Your task to perform on an android device: turn off sleep mode Image 0: 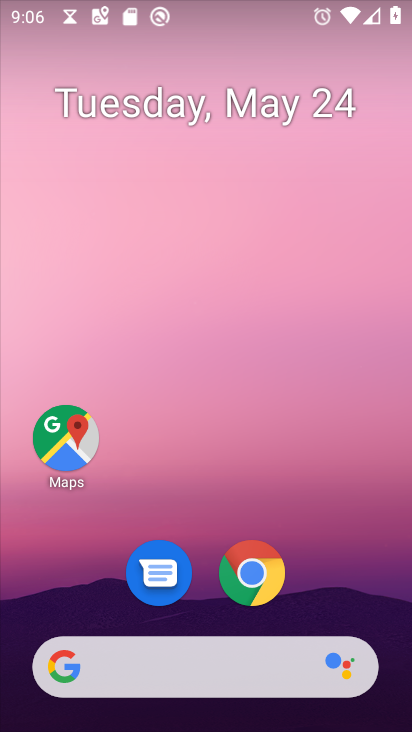
Step 0: click (288, 14)
Your task to perform on an android device: turn off sleep mode Image 1: 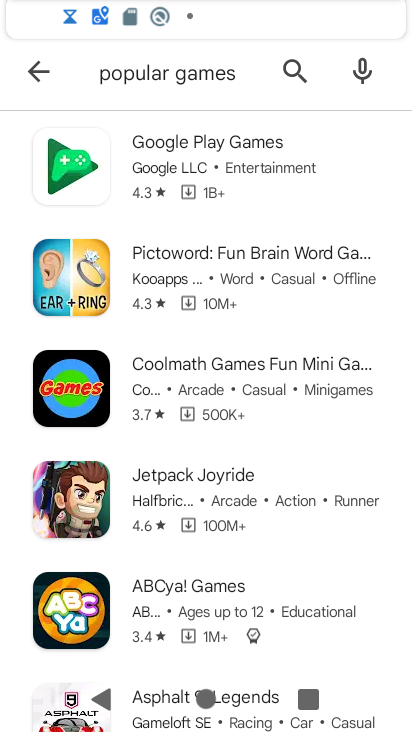
Step 1: press home button
Your task to perform on an android device: turn off sleep mode Image 2: 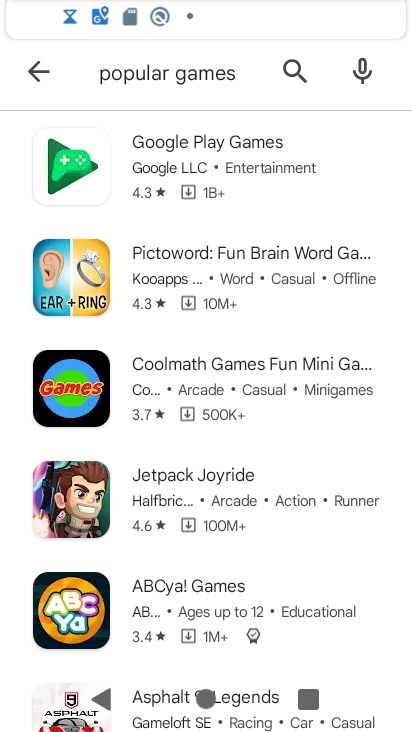
Step 2: drag from (288, 14) to (400, 271)
Your task to perform on an android device: turn off sleep mode Image 3: 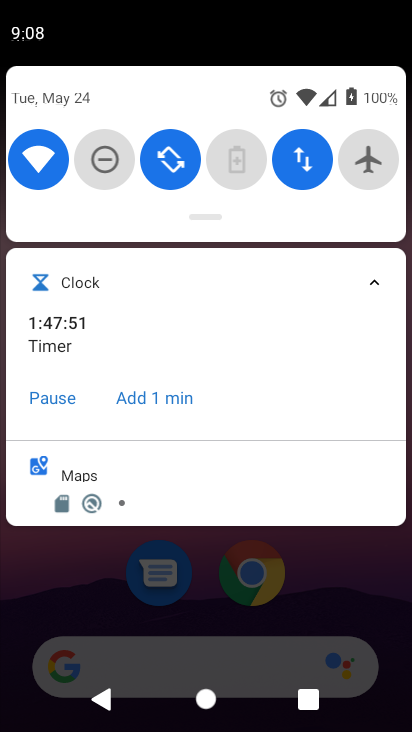
Step 3: drag from (352, 586) to (344, 6)
Your task to perform on an android device: turn off sleep mode Image 4: 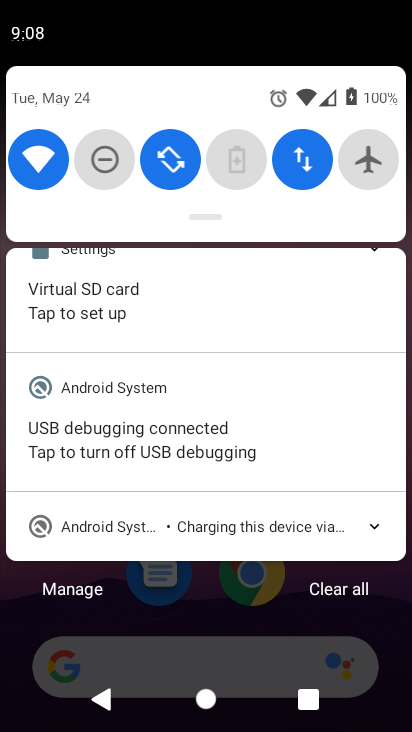
Step 4: drag from (342, 589) to (339, 152)
Your task to perform on an android device: turn off sleep mode Image 5: 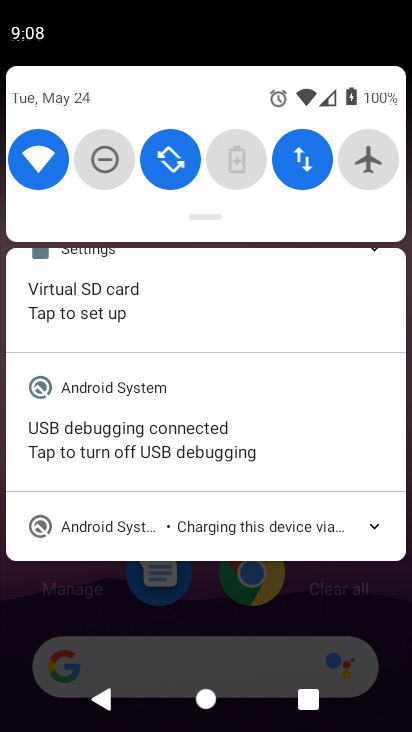
Step 5: press home button
Your task to perform on an android device: turn off sleep mode Image 6: 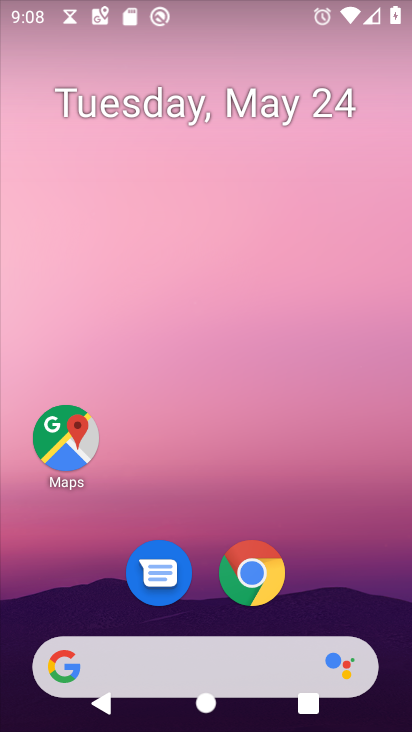
Step 6: press home button
Your task to perform on an android device: turn off sleep mode Image 7: 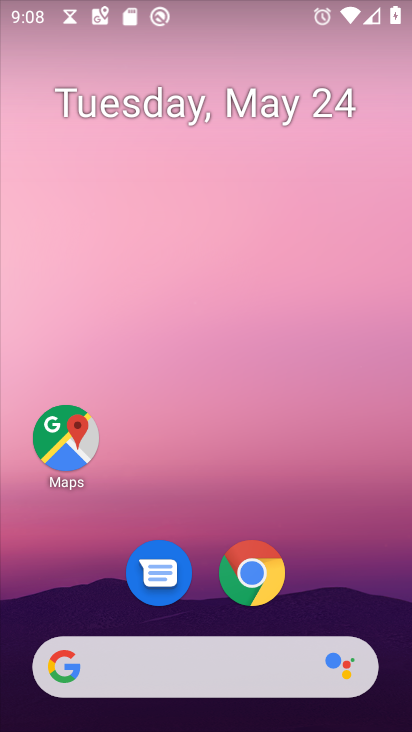
Step 7: drag from (369, 557) to (333, 25)
Your task to perform on an android device: turn off sleep mode Image 8: 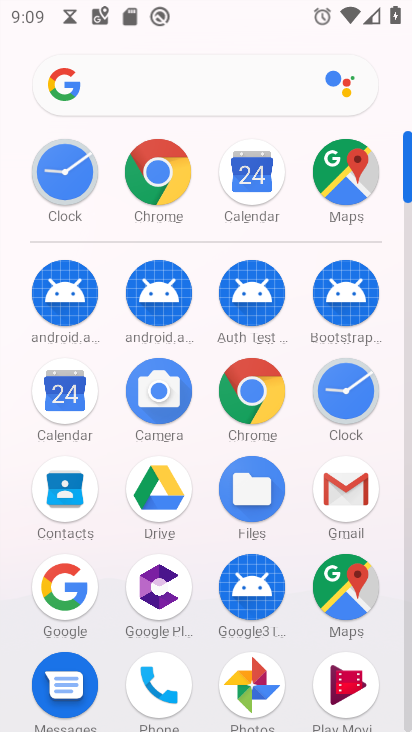
Step 8: drag from (388, 601) to (407, 165)
Your task to perform on an android device: turn off sleep mode Image 9: 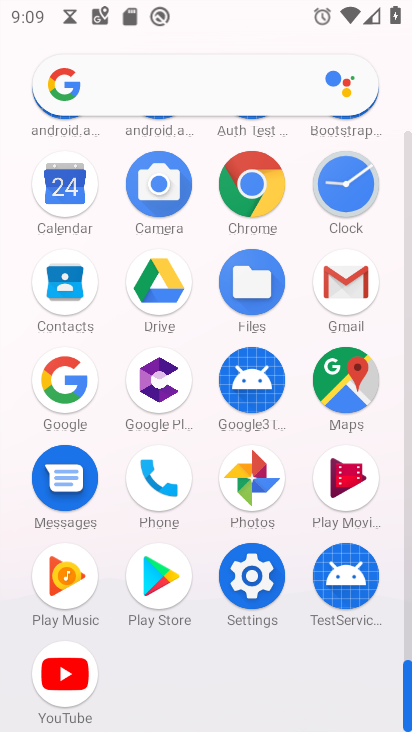
Step 9: click (252, 571)
Your task to perform on an android device: turn off sleep mode Image 10: 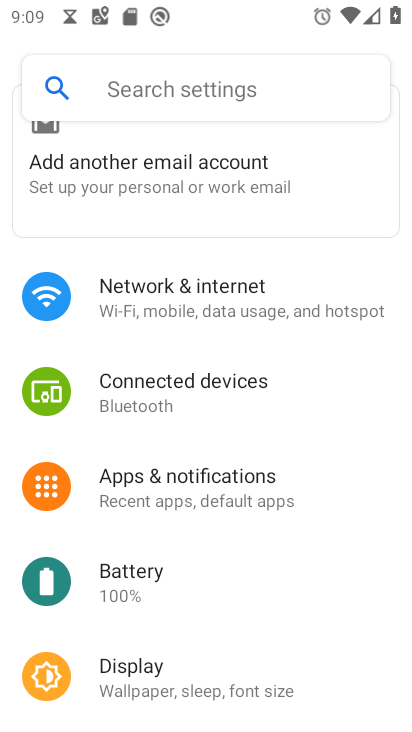
Step 10: click (166, 668)
Your task to perform on an android device: turn off sleep mode Image 11: 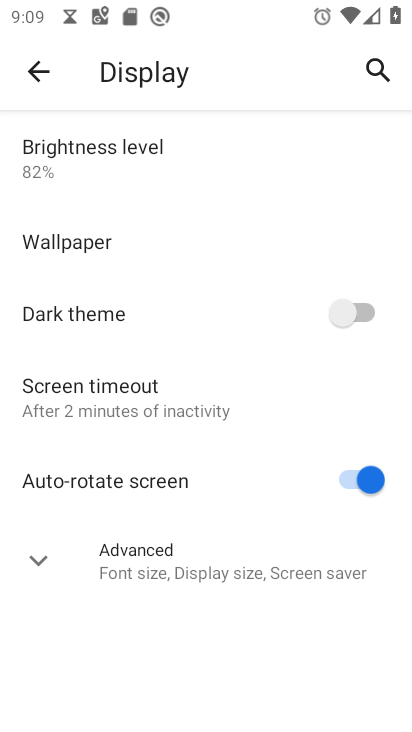
Step 11: click (122, 391)
Your task to perform on an android device: turn off sleep mode Image 12: 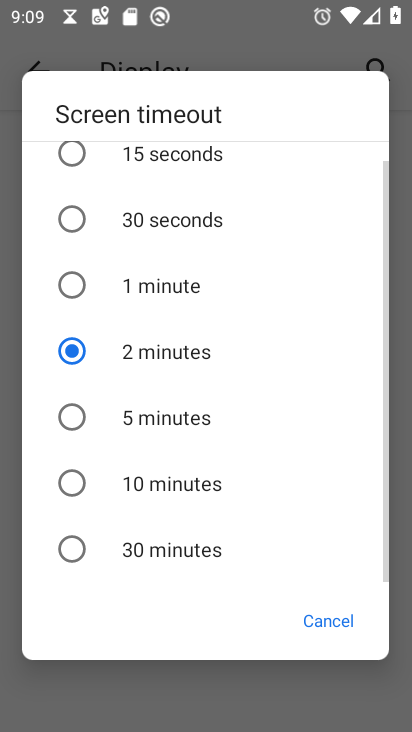
Step 12: task complete